Your task to perform on an android device: open app "Gmail" Image 0: 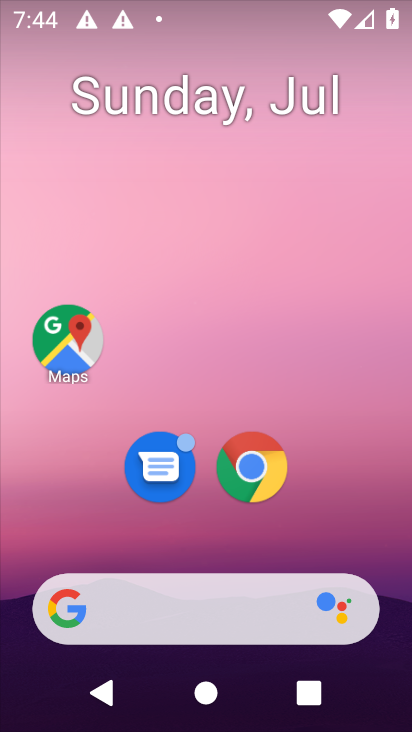
Step 0: drag from (181, 545) to (232, 150)
Your task to perform on an android device: open app "Gmail" Image 1: 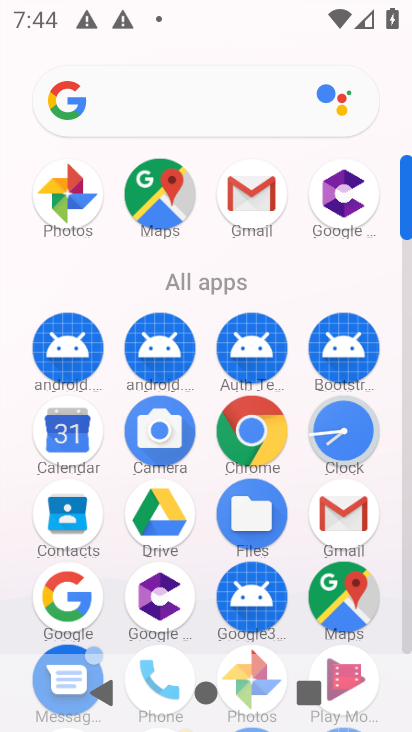
Step 1: drag from (184, 589) to (257, 141)
Your task to perform on an android device: open app "Gmail" Image 2: 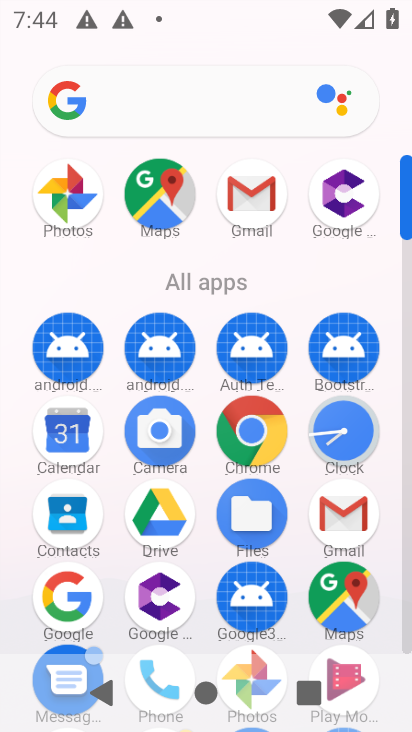
Step 2: click (249, 194)
Your task to perform on an android device: open app "Gmail" Image 3: 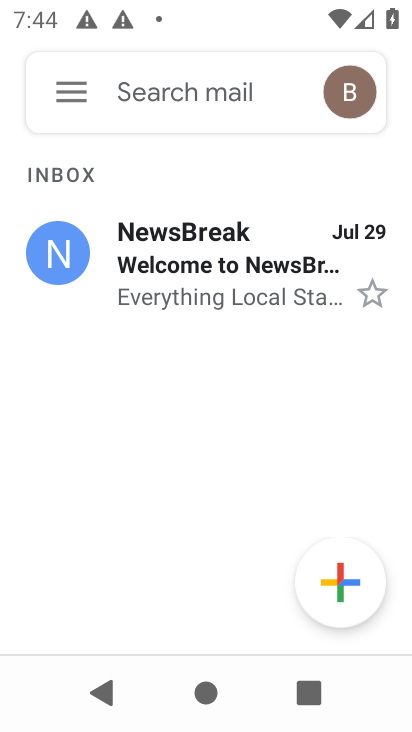
Step 3: click (283, 364)
Your task to perform on an android device: open app "Gmail" Image 4: 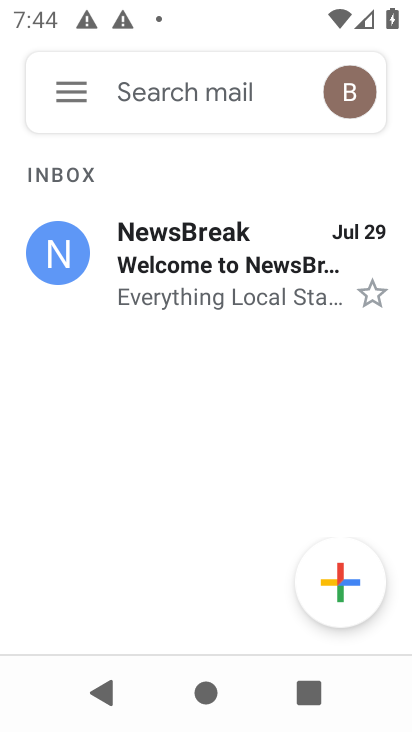
Step 4: task complete